Your task to perform on an android device: Show me productivity apps on the Play Store Image 0: 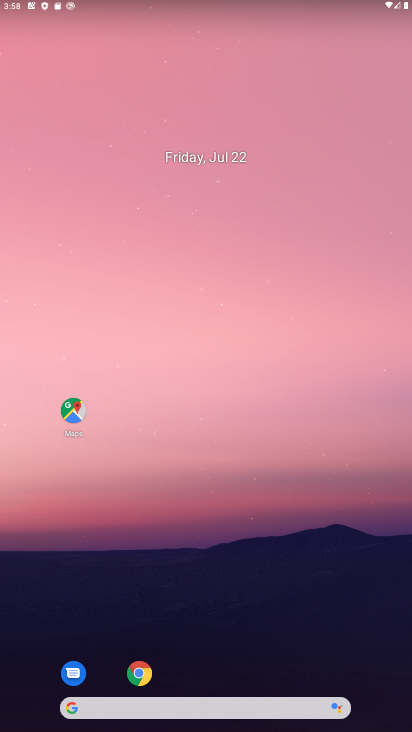
Step 0: drag from (214, 670) to (244, 31)
Your task to perform on an android device: Show me productivity apps on the Play Store Image 1: 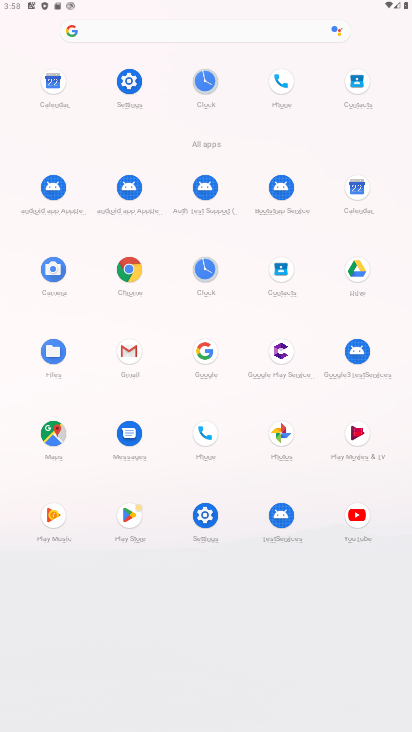
Step 1: click (125, 506)
Your task to perform on an android device: Show me productivity apps on the Play Store Image 2: 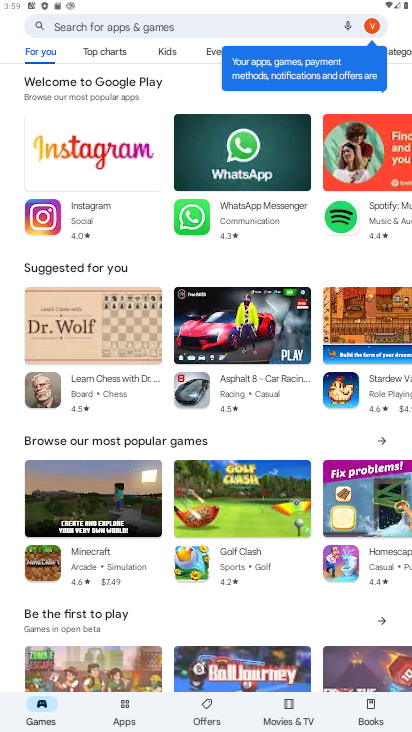
Step 2: click (124, 703)
Your task to perform on an android device: Show me productivity apps on the Play Store Image 3: 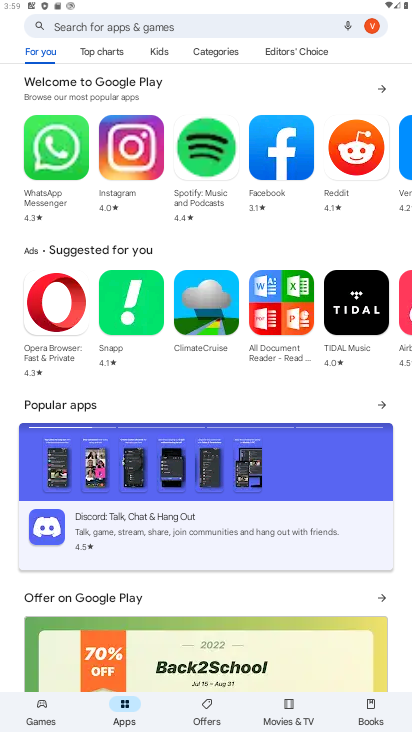
Step 3: click (217, 45)
Your task to perform on an android device: Show me productivity apps on the Play Store Image 4: 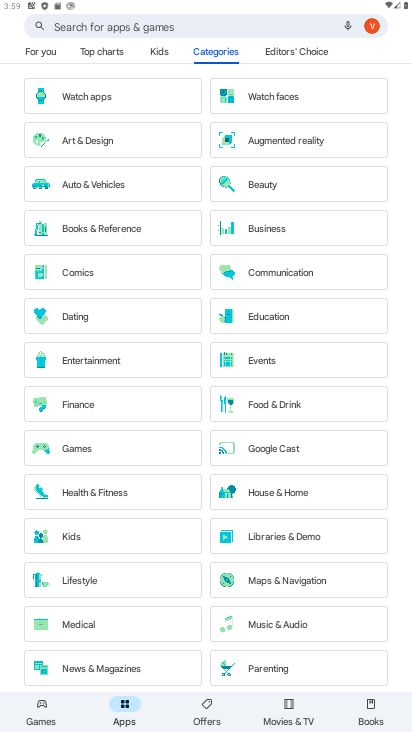
Step 4: drag from (171, 644) to (186, 175)
Your task to perform on an android device: Show me productivity apps on the Play Store Image 5: 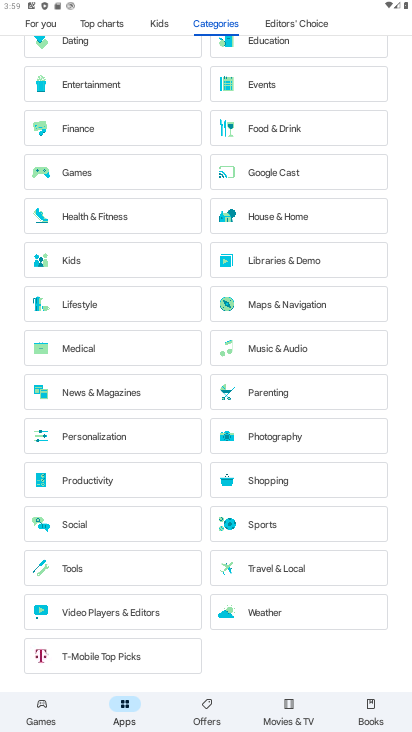
Step 5: click (133, 483)
Your task to perform on an android device: Show me productivity apps on the Play Store Image 6: 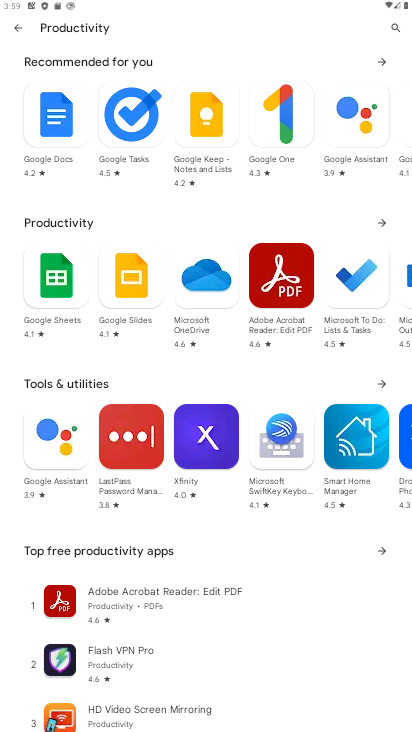
Step 6: click (376, 219)
Your task to perform on an android device: Show me productivity apps on the Play Store Image 7: 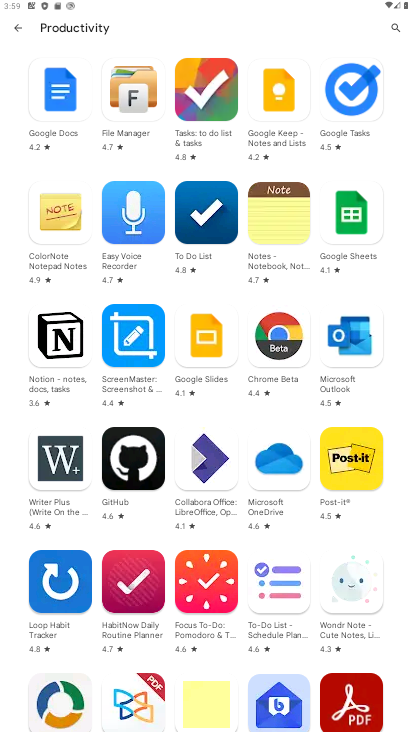
Step 7: task complete